Your task to perform on an android device: toggle location history Image 0: 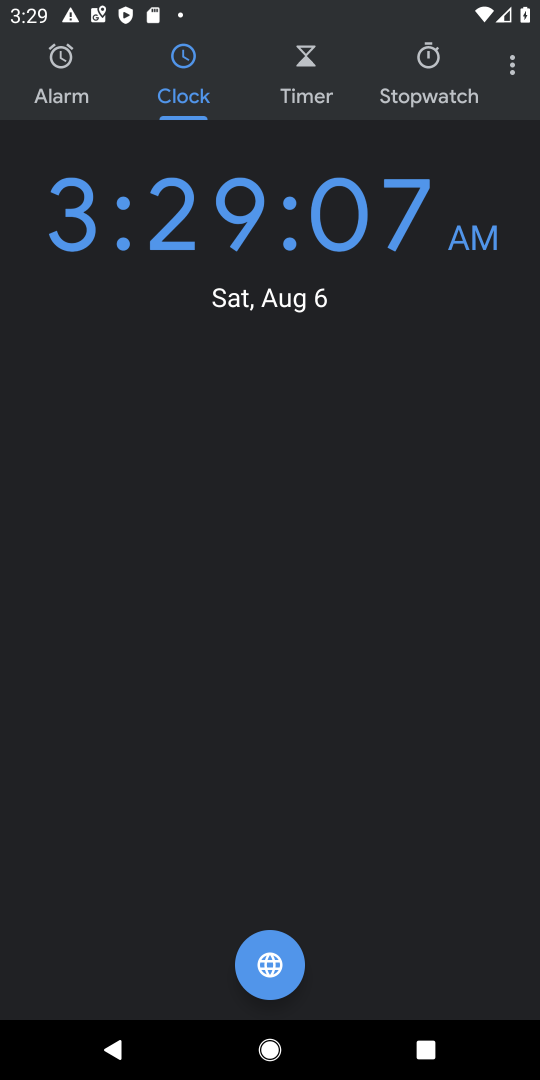
Step 0: press back button
Your task to perform on an android device: toggle location history Image 1: 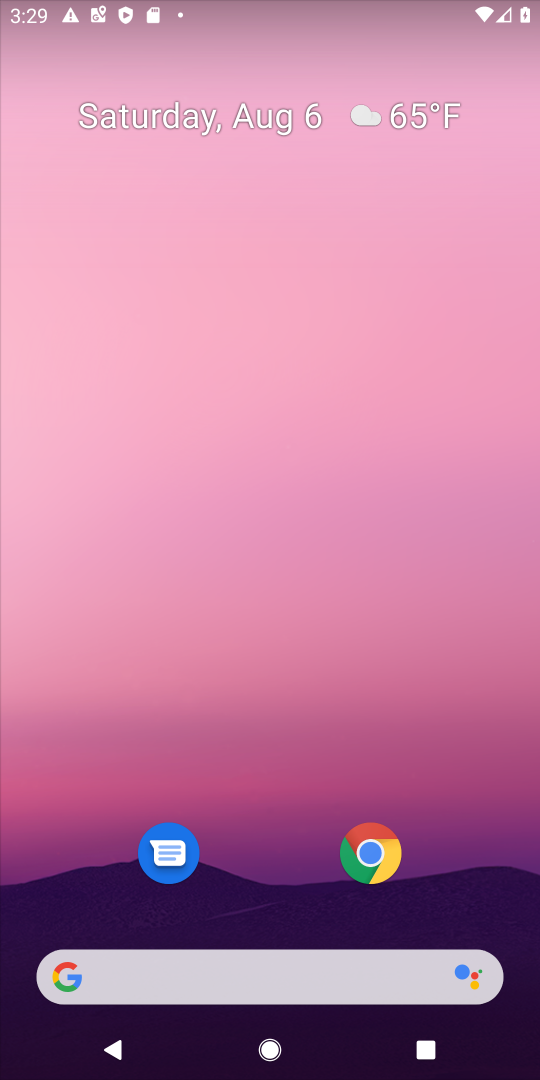
Step 1: drag from (283, 894) to (405, 45)
Your task to perform on an android device: toggle location history Image 2: 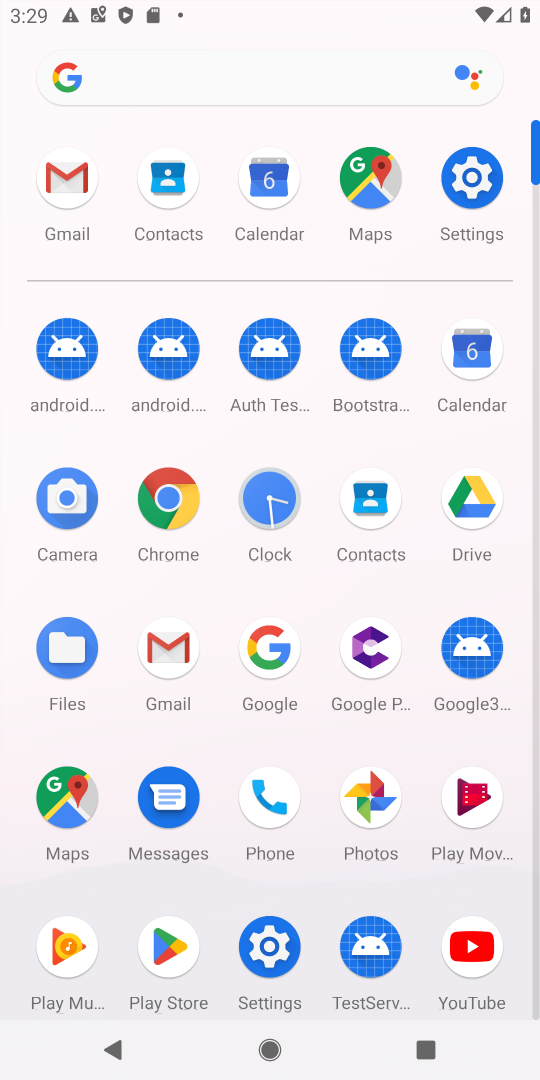
Step 2: click (470, 173)
Your task to perform on an android device: toggle location history Image 3: 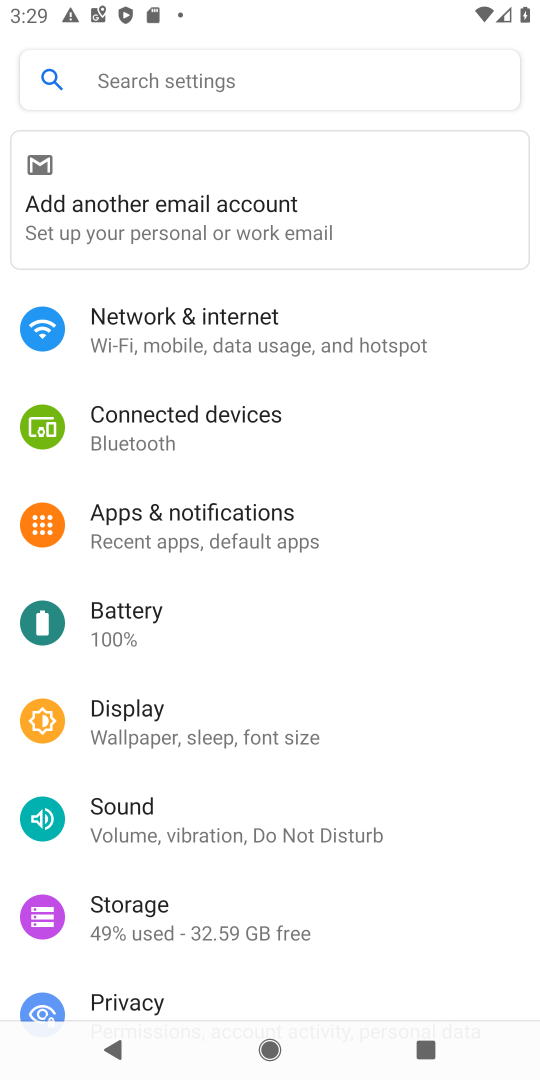
Step 3: drag from (208, 968) to (338, 427)
Your task to perform on an android device: toggle location history Image 4: 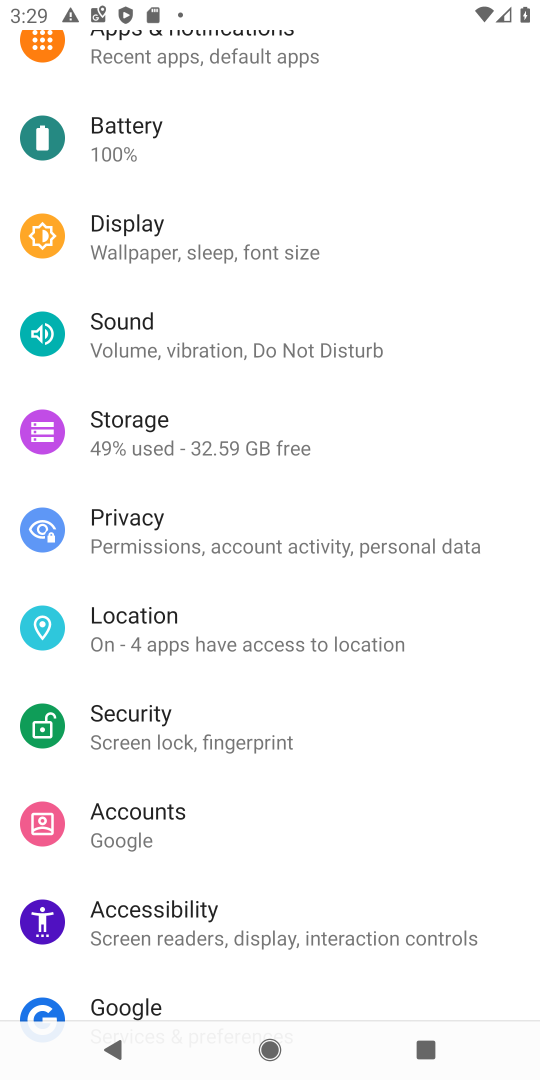
Step 4: click (204, 614)
Your task to perform on an android device: toggle location history Image 5: 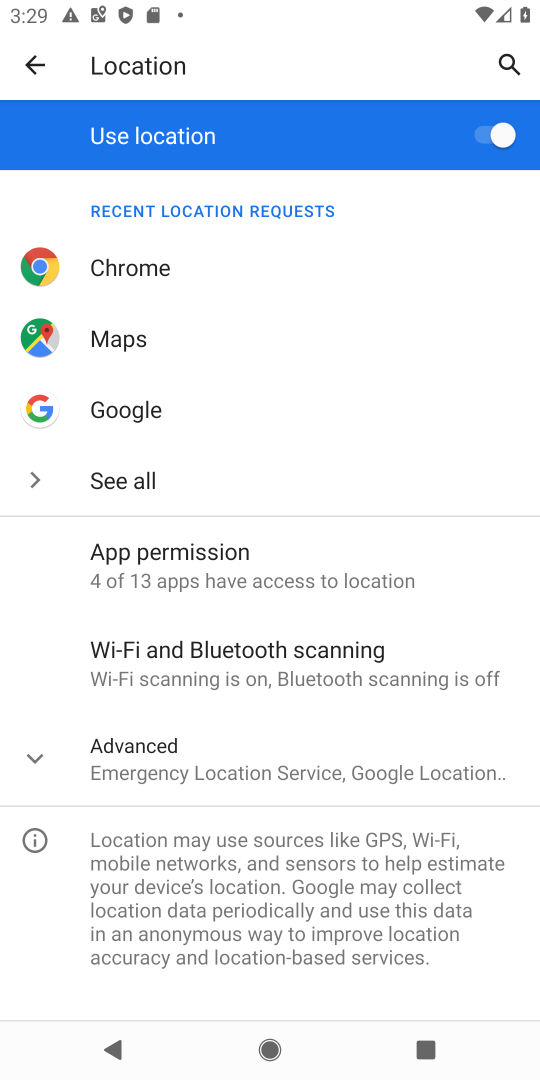
Step 5: click (210, 753)
Your task to perform on an android device: toggle location history Image 6: 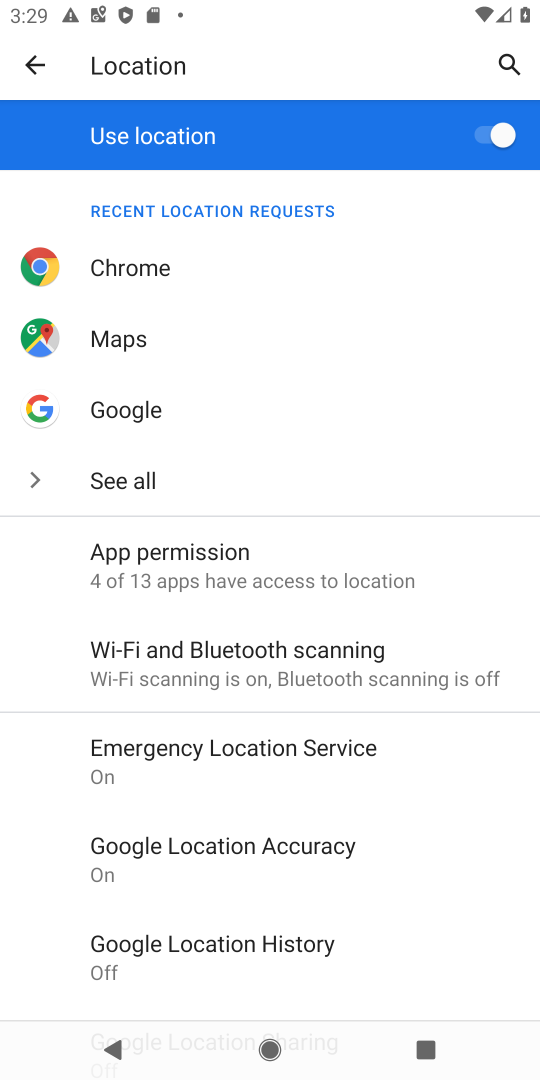
Step 6: click (279, 942)
Your task to perform on an android device: toggle location history Image 7: 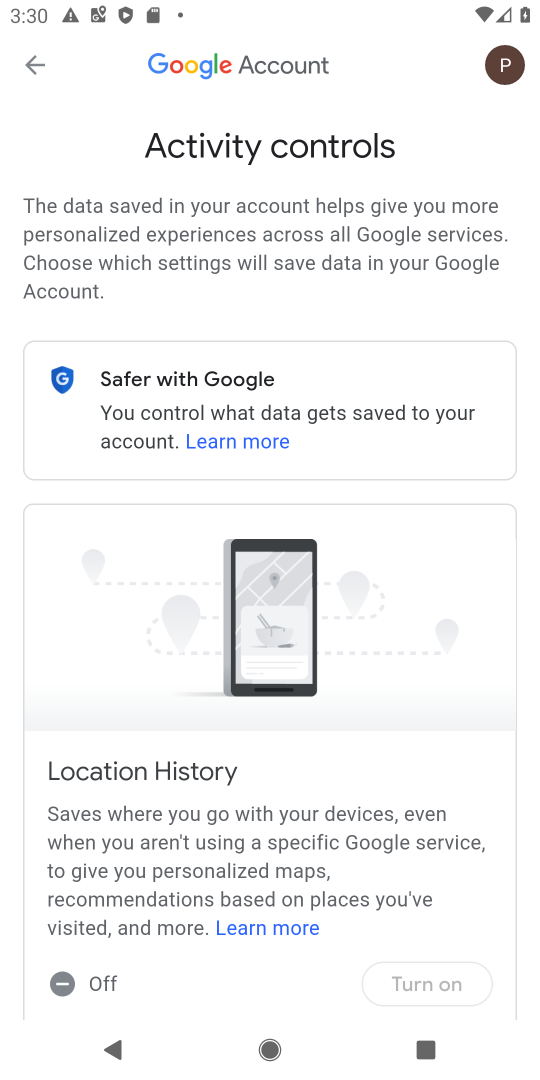
Step 7: task complete